Your task to perform on an android device: Go to Android settings Image 0: 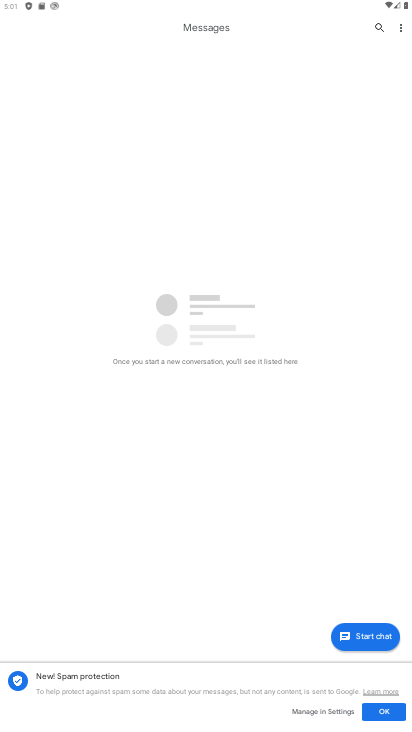
Step 0: press home button
Your task to perform on an android device: Go to Android settings Image 1: 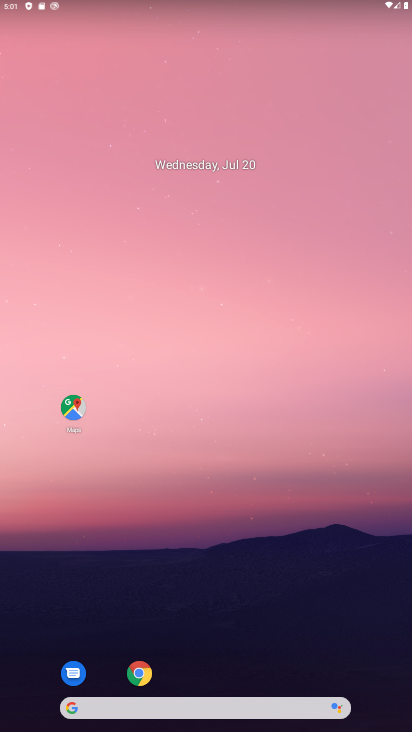
Step 1: drag from (186, 625) to (188, 239)
Your task to perform on an android device: Go to Android settings Image 2: 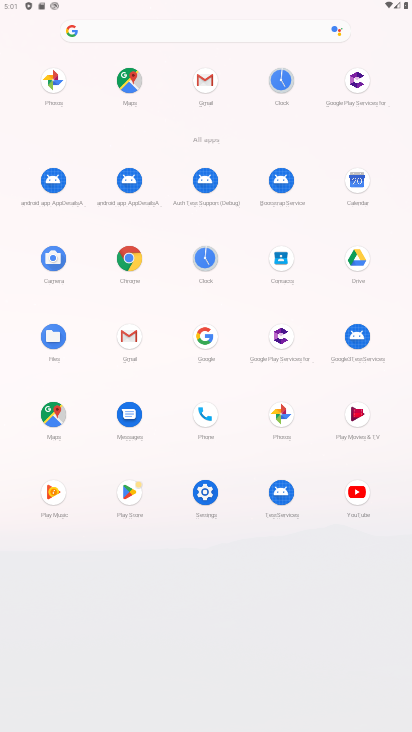
Step 2: click (201, 491)
Your task to perform on an android device: Go to Android settings Image 3: 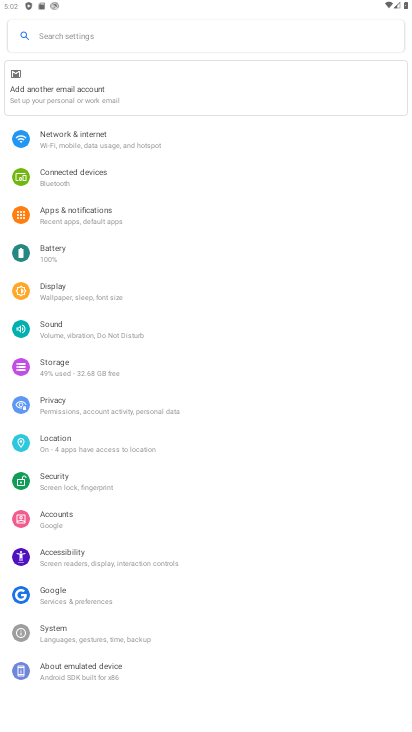
Step 3: task complete